Your task to perform on an android device: Add "bose soundlink mini" to the cart on target, then select checkout. Image 0: 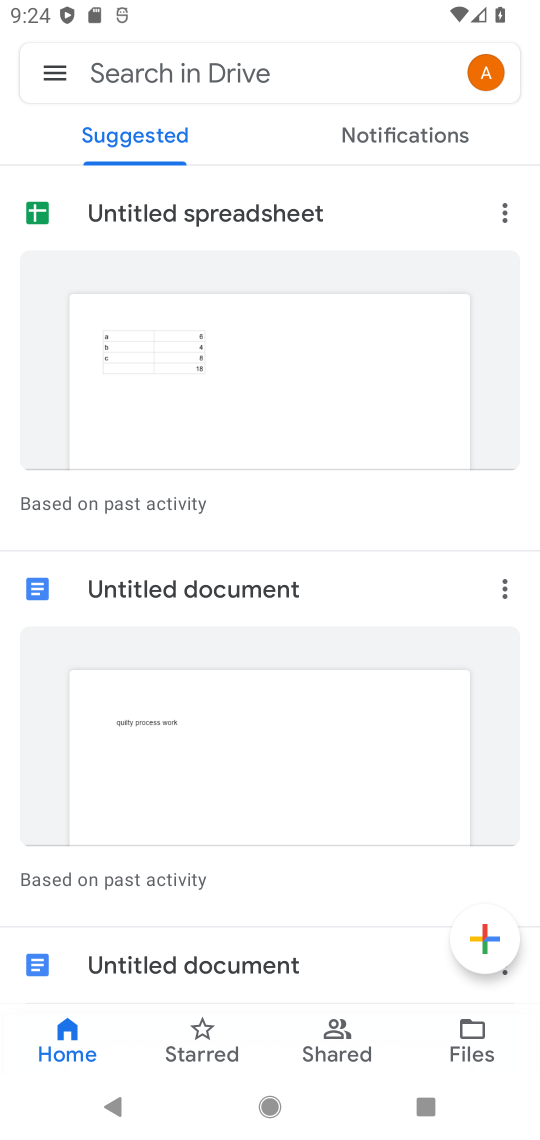
Step 0: press home button
Your task to perform on an android device: Add "bose soundlink mini" to the cart on target, then select checkout. Image 1: 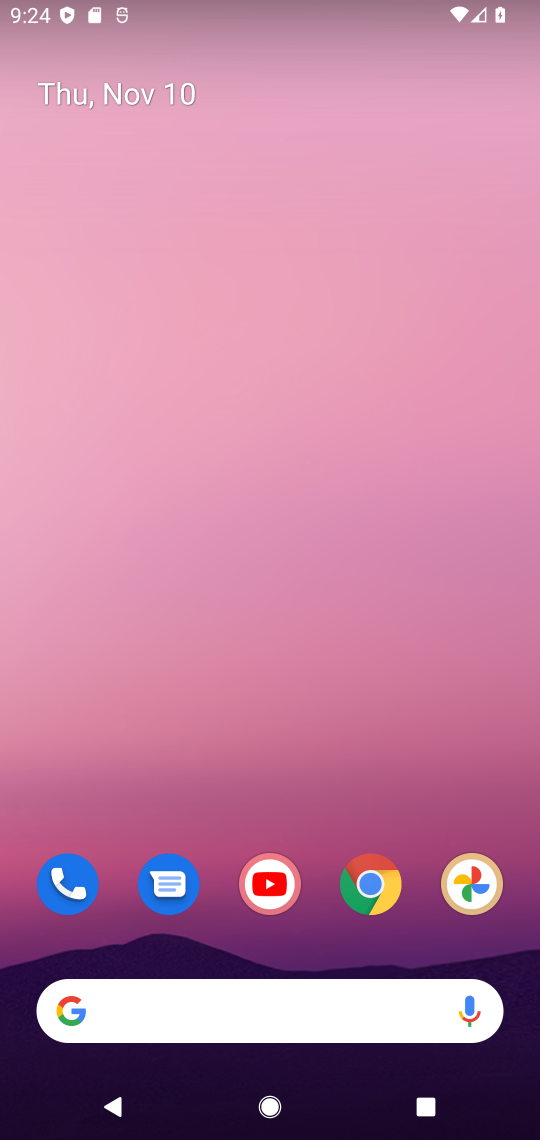
Step 1: click (278, 1023)
Your task to perform on an android device: Add "bose soundlink mini" to the cart on target, then select checkout. Image 2: 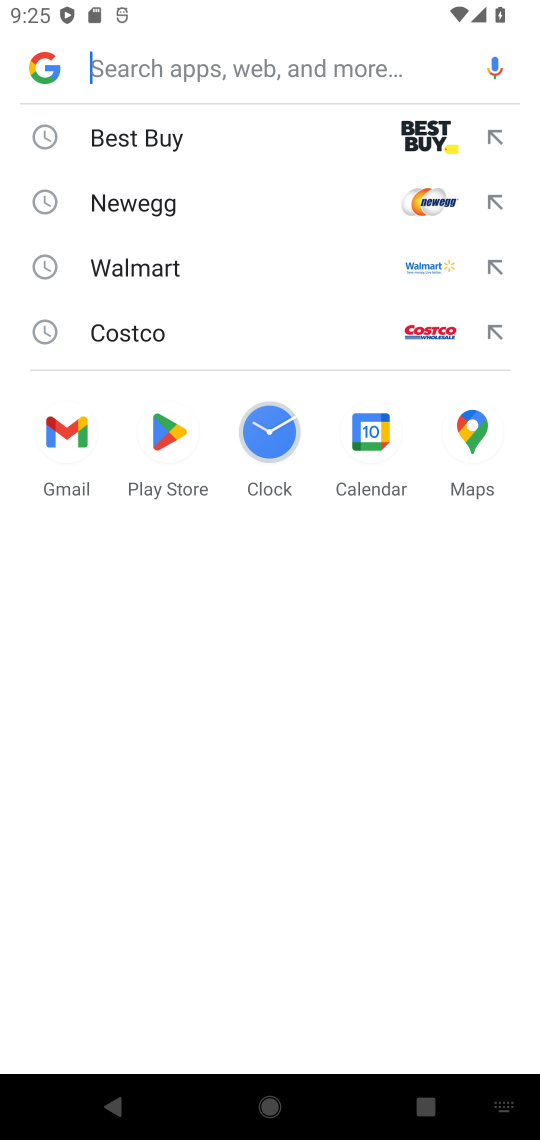
Step 2: type "target"
Your task to perform on an android device: Add "bose soundlink mini" to the cart on target, then select checkout. Image 3: 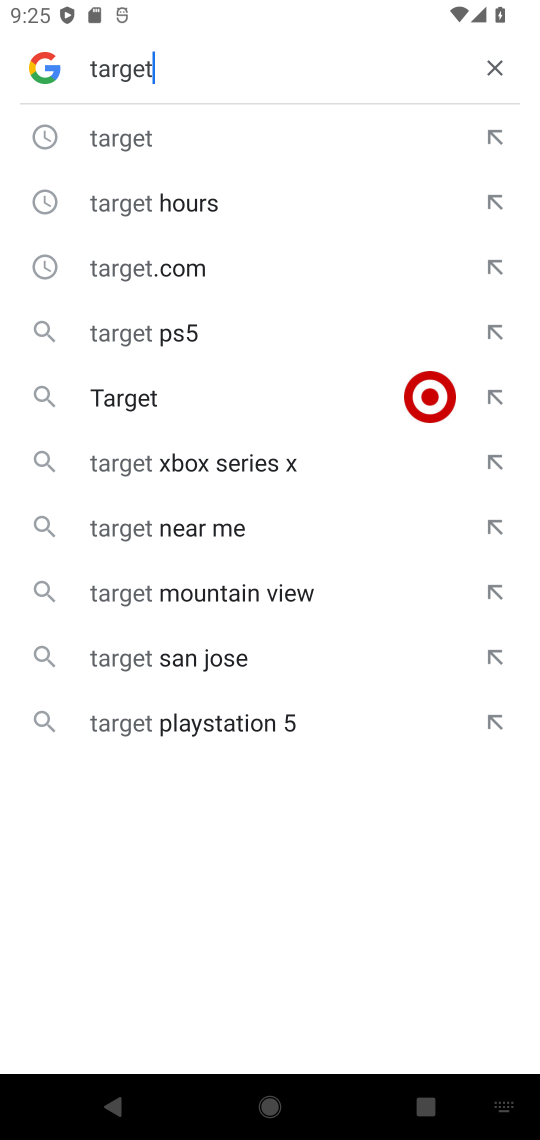
Step 3: click (255, 389)
Your task to perform on an android device: Add "bose soundlink mini" to the cart on target, then select checkout. Image 4: 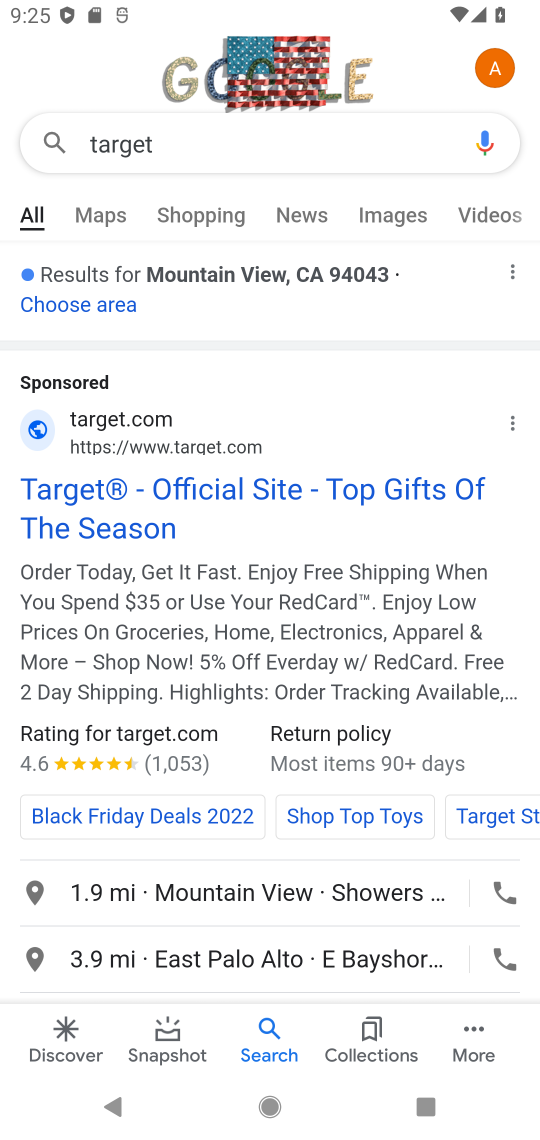
Step 4: click (125, 422)
Your task to perform on an android device: Add "bose soundlink mini" to the cart on target, then select checkout. Image 5: 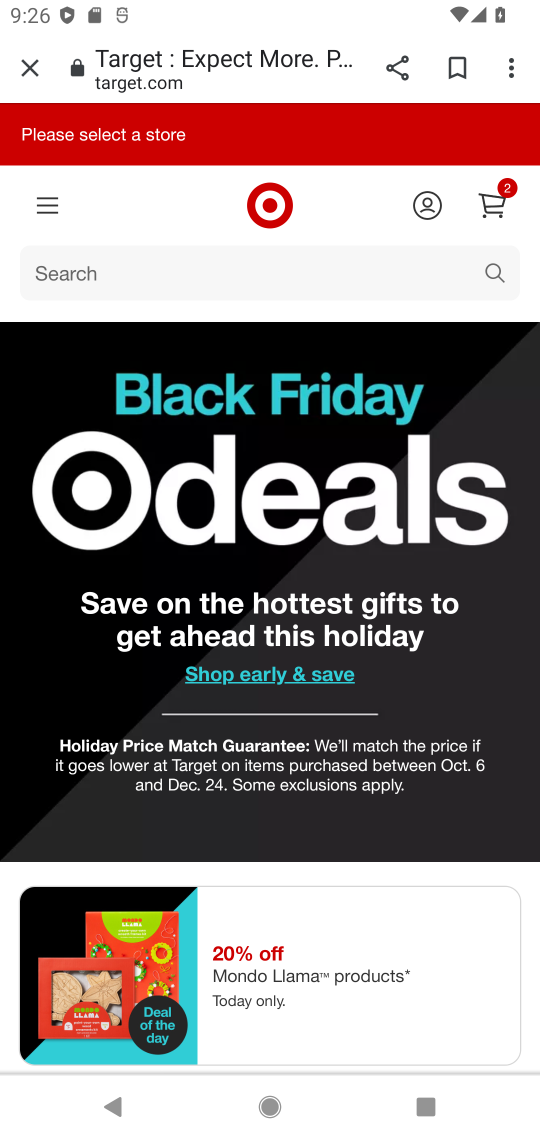
Step 5: click (243, 274)
Your task to perform on an android device: Add "bose soundlink mini" to the cart on target, then select checkout. Image 6: 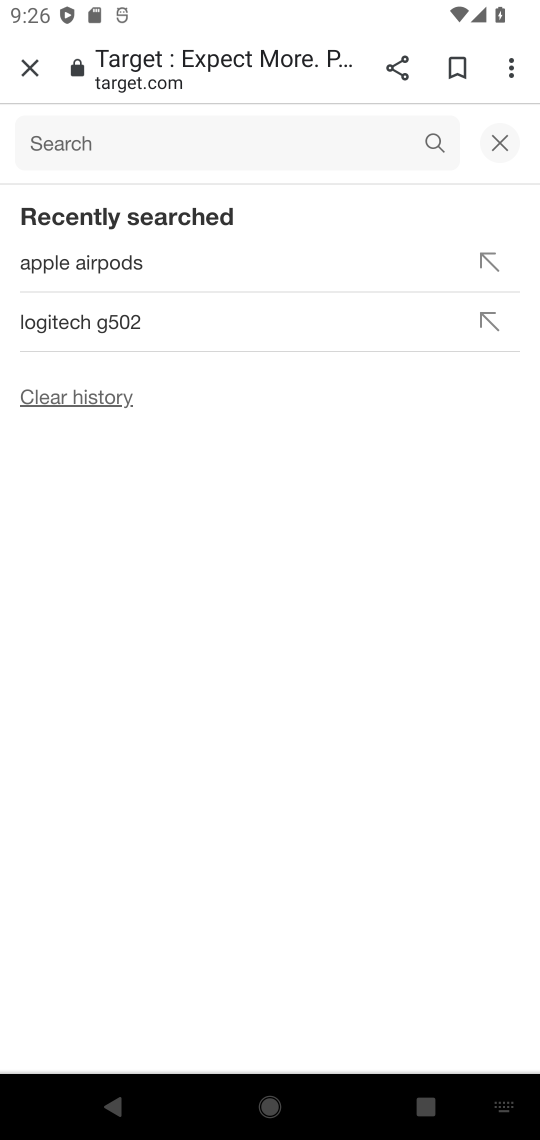
Step 6: type "target"
Your task to perform on an android device: Add "bose soundlink mini" to the cart on target, then select checkout. Image 7: 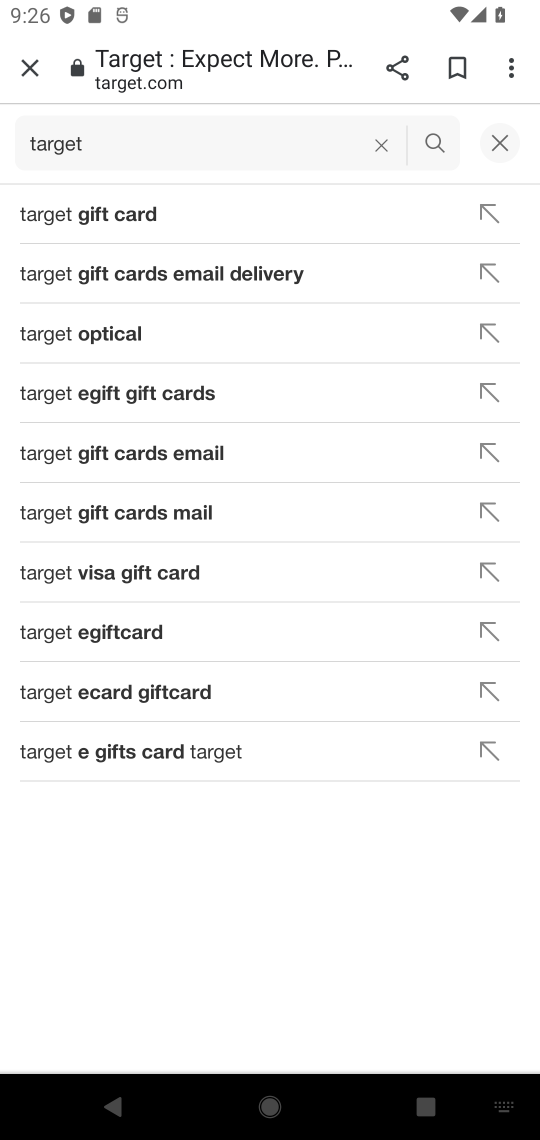
Step 7: click (378, 150)
Your task to perform on an android device: Add "bose soundlink mini" to the cart on target, then select checkout. Image 8: 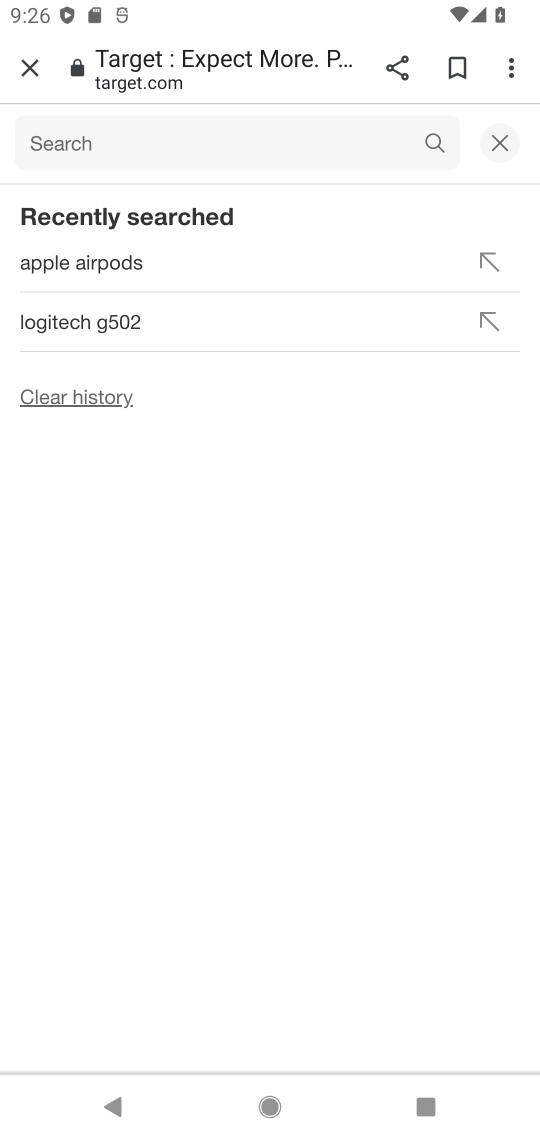
Step 8: click (262, 135)
Your task to perform on an android device: Add "bose soundlink mini" to the cart on target, then select checkout. Image 9: 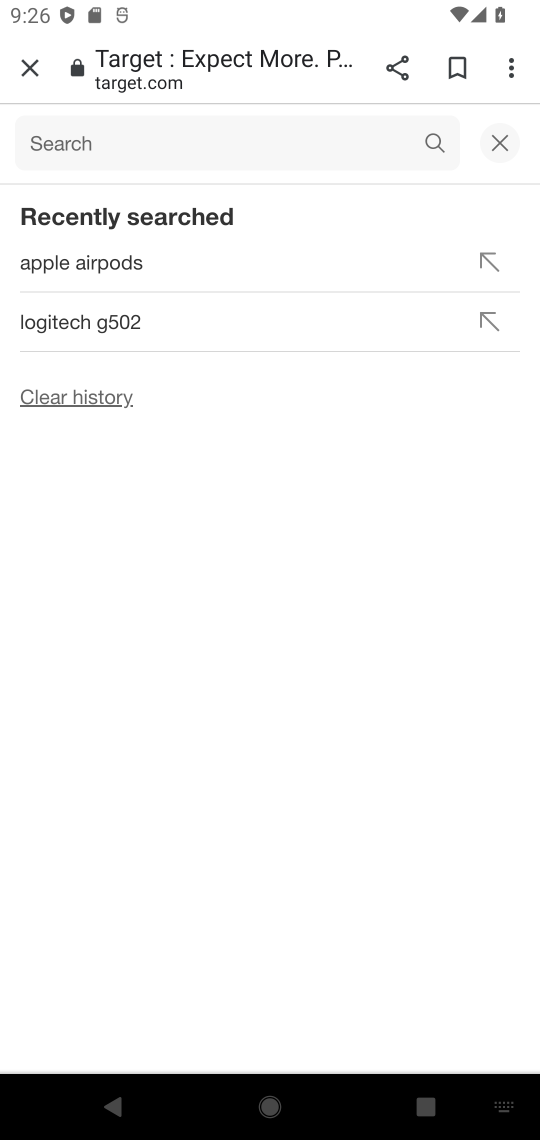
Step 9: type "bose soundlink mini"
Your task to perform on an android device: Add "bose soundlink mini" to the cart on target, then select checkout. Image 10: 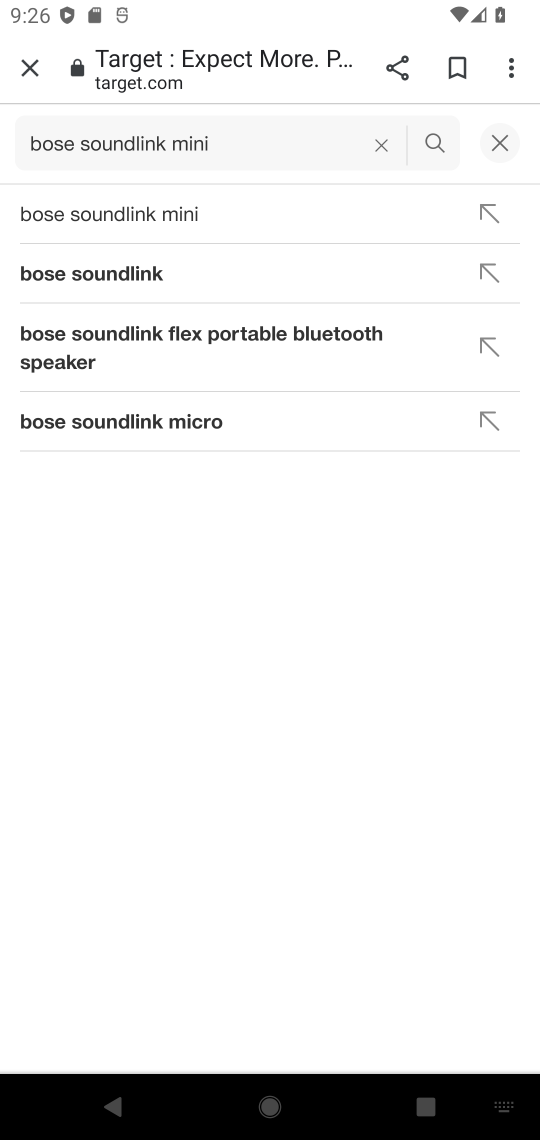
Step 10: click (176, 207)
Your task to perform on an android device: Add "bose soundlink mini" to the cart on target, then select checkout. Image 11: 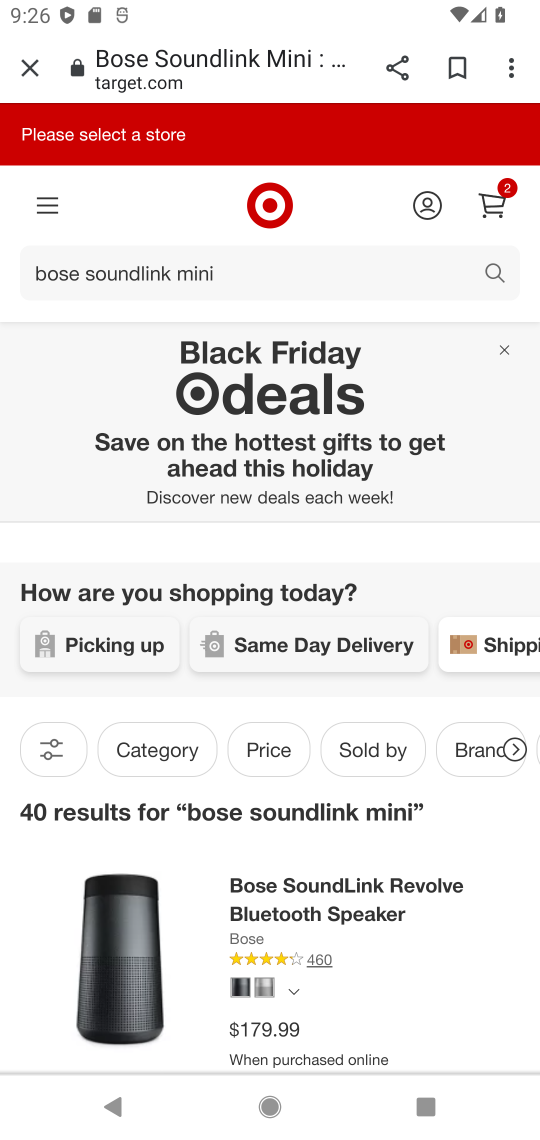
Step 11: drag from (208, 813) to (248, 540)
Your task to perform on an android device: Add "bose soundlink mini" to the cart on target, then select checkout. Image 12: 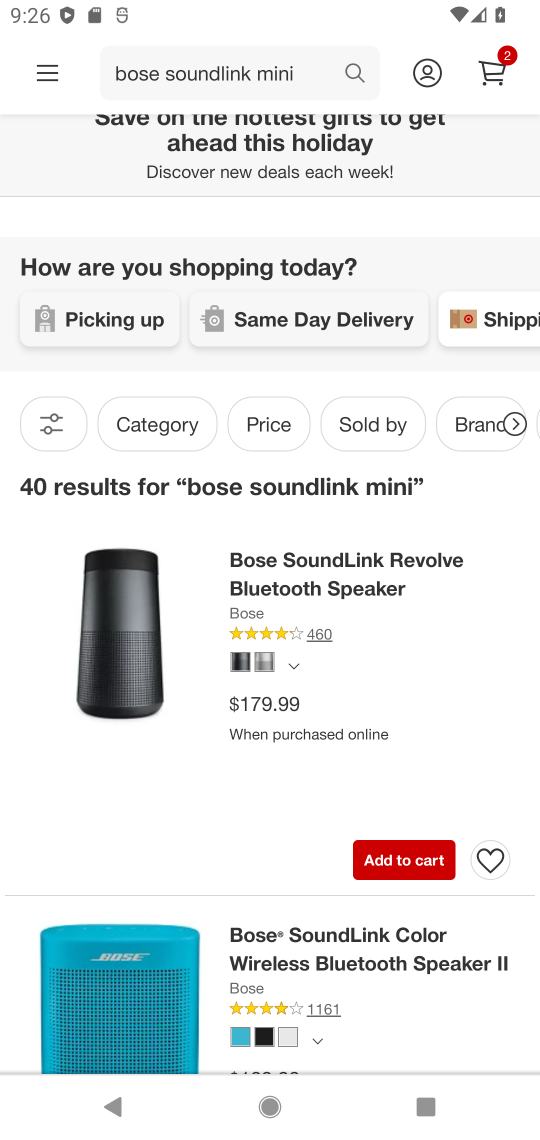
Step 12: click (388, 850)
Your task to perform on an android device: Add "bose soundlink mini" to the cart on target, then select checkout. Image 13: 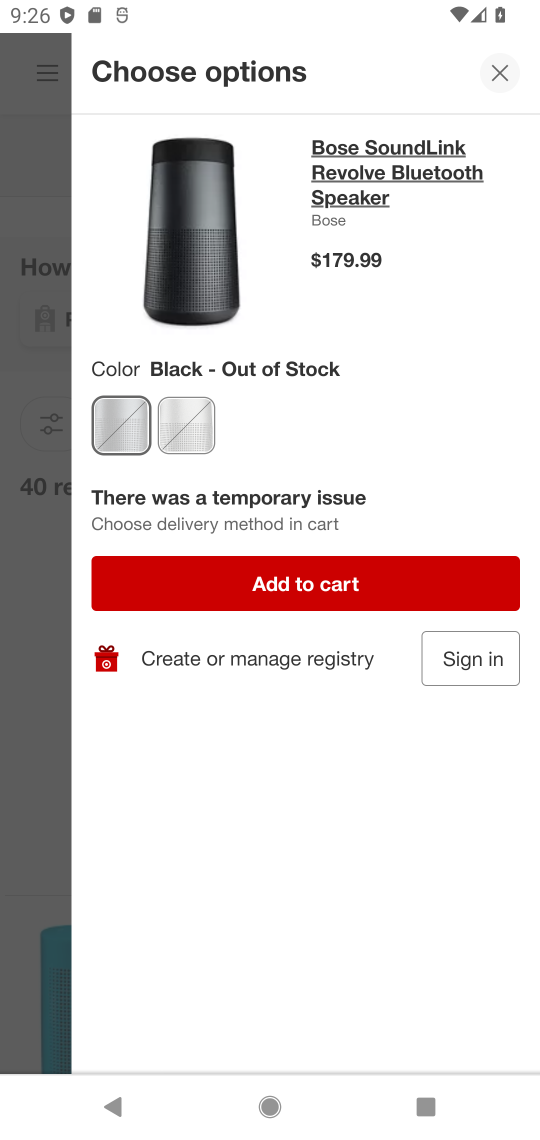
Step 13: click (499, 68)
Your task to perform on an android device: Add "bose soundlink mini" to the cart on target, then select checkout. Image 14: 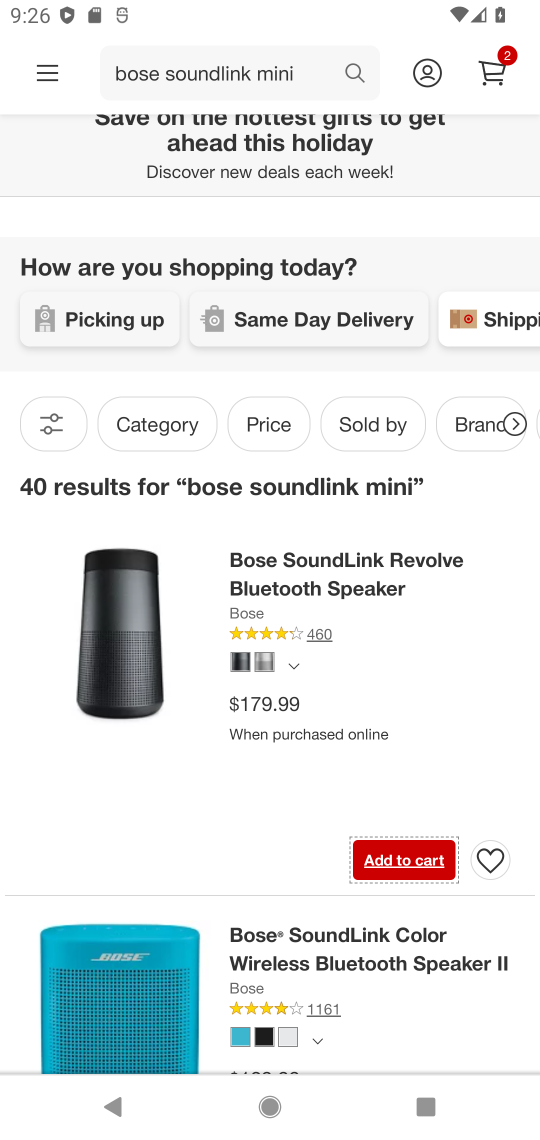
Step 14: task complete